Your task to perform on an android device: What's the weather going to be tomorrow? Image 0: 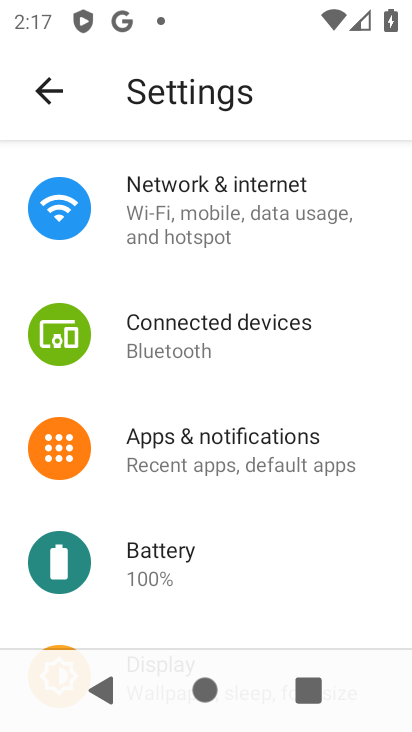
Step 0: press home button
Your task to perform on an android device: What's the weather going to be tomorrow? Image 1: 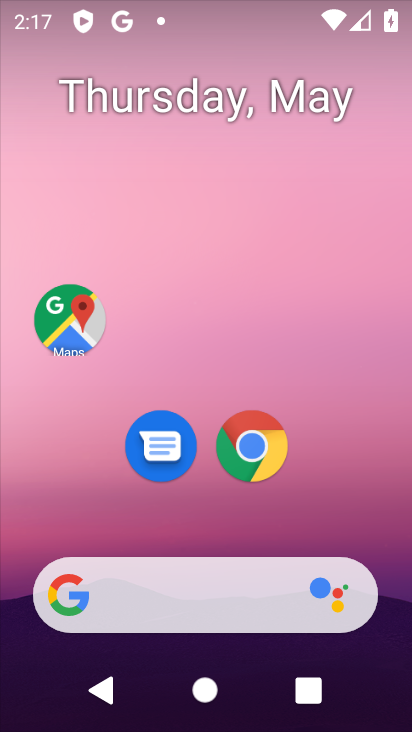
Step 1: click (249, 589)
Your task to perform on an android device: What's the weather going to be tomorrow? Image 2: 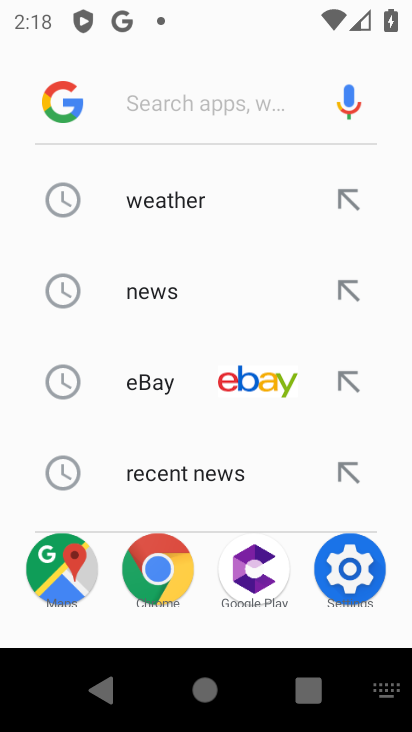
Step 2: type "what's the weather going to be tomorrow"
Your task to perform on an android device: What's the weather going to be tomorrow? Image 3: 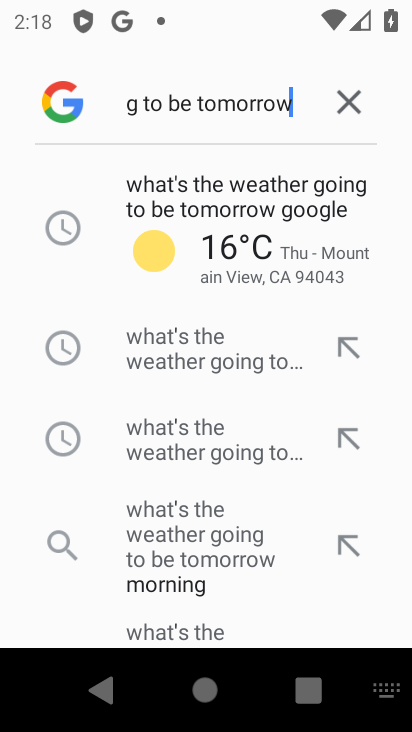
Step 3: click (190, 230)
Your task to perform on an android device: What's the weather going to be tomorrow? Image 4: 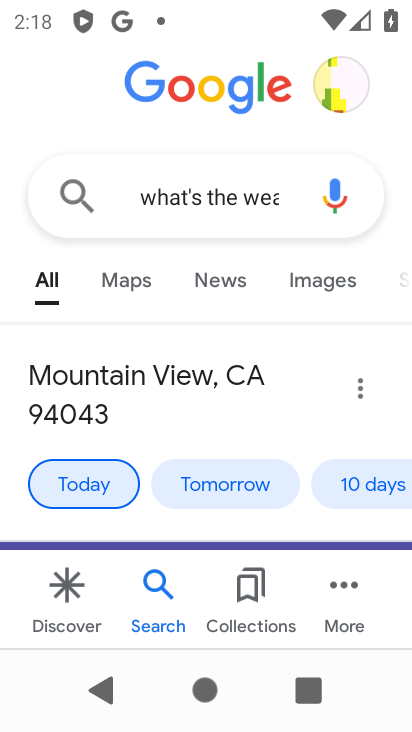
Step 4: drag from (172, 513) to (141, 222)
Your task to perform on an android device: What's the weather going to be tomorrow? Image 5: 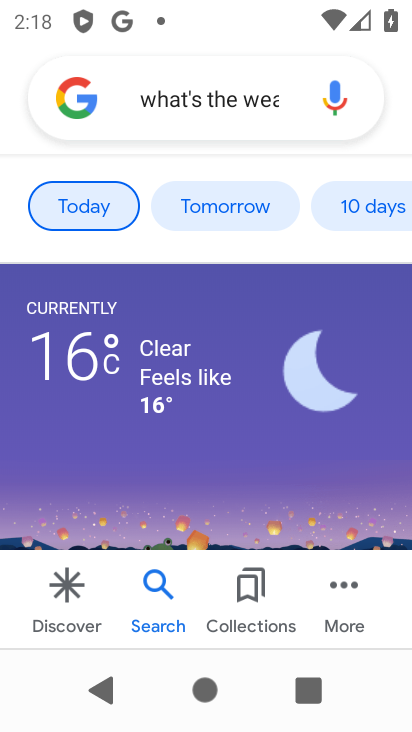
Step 5: drag from (136, 448) to (125, 247)
Your task to perform on an android device: What's the weather going to be tomorrow? Image 6: 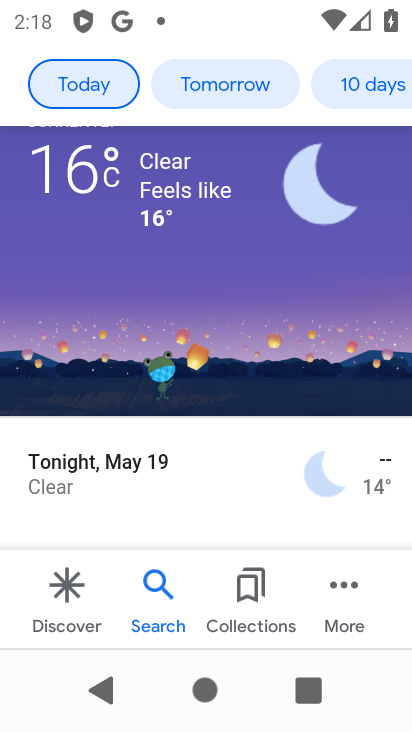
Step 6: drag from (128, 250) to (133, 327)
Your task to perform on an android device: What's the weather going to be tomorrow? Image 7: 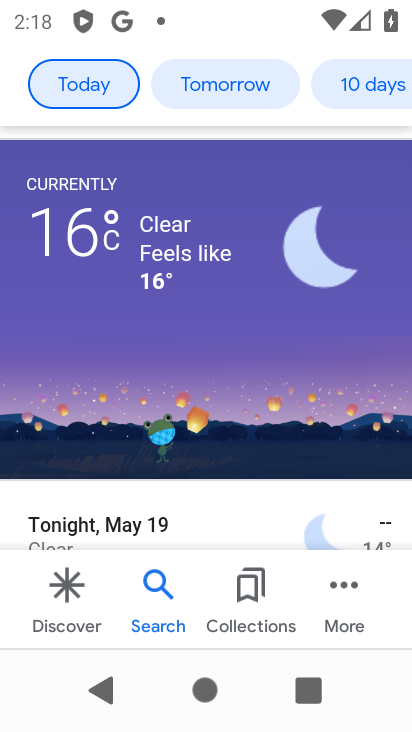
Step 7: click (223, 74)
Your task to perform on an android device: What's the weather going to be tomorrow? Image 8: 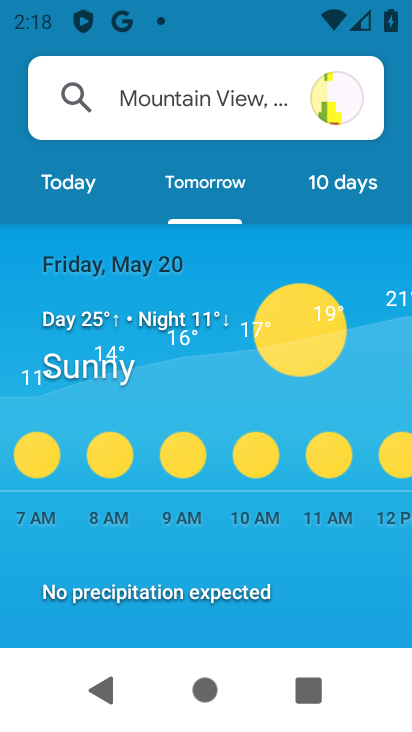
Step 8: task complete